Your task to perform on an android device: What's the weather going to be this weekend? Image 0: 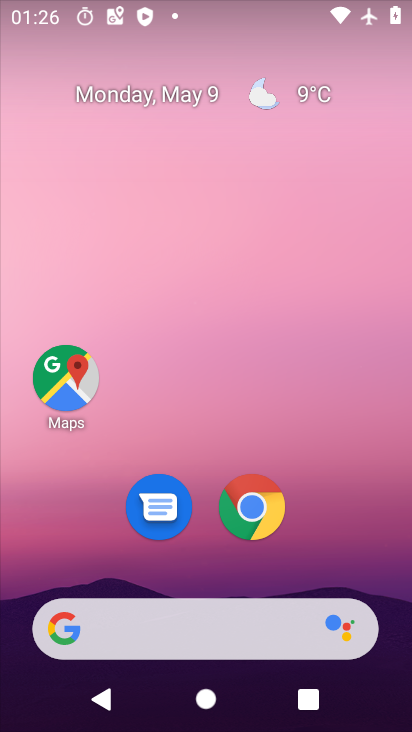
Step 0: click (275, 79)
Your task to perform on an android device: What's the weather going to be this weekend? Image 1: 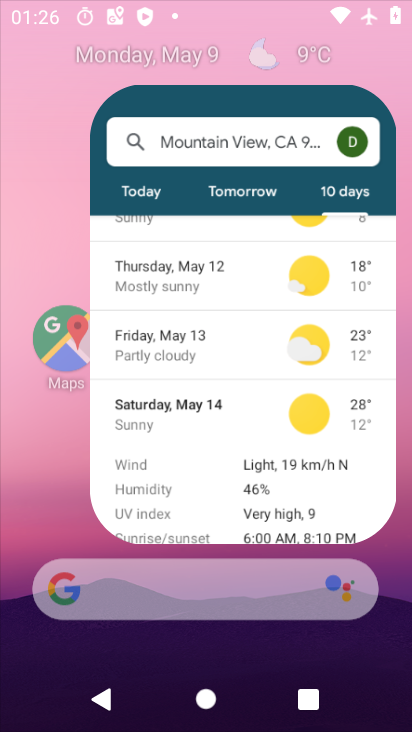
Step 1: click (266, 89)
Your task to perform on an android device: What's the weather going to be this weekend? Image 2: 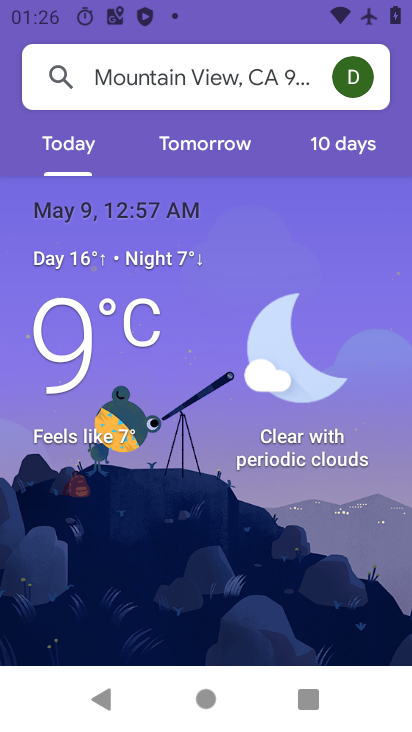
Step 2: click (348, 141)
Your task to perform on an android device: What's the weather going to be this weekend? Image 3: 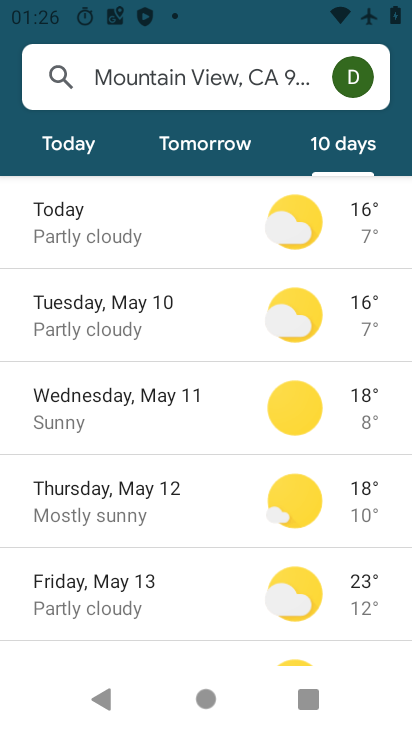
Step 3: task complete